Your task to perform on an android device: allow cookies in the chrome app Image 0: 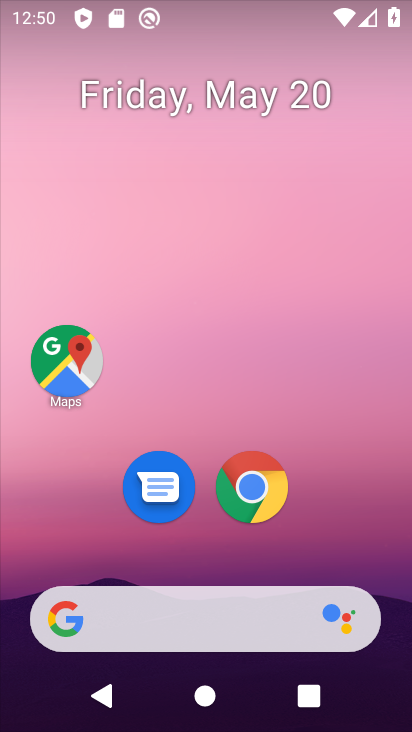
Step 0: click (256, 488)
Your task to perform on an android device: allow cookies in the chrome app Image 1: 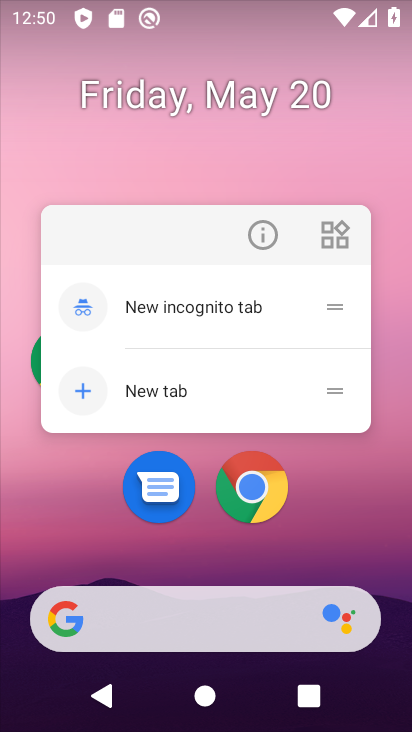
Step 1: click (256, 488)
Your task to perform on an android device: allow cookies in the chrome app Image 2: 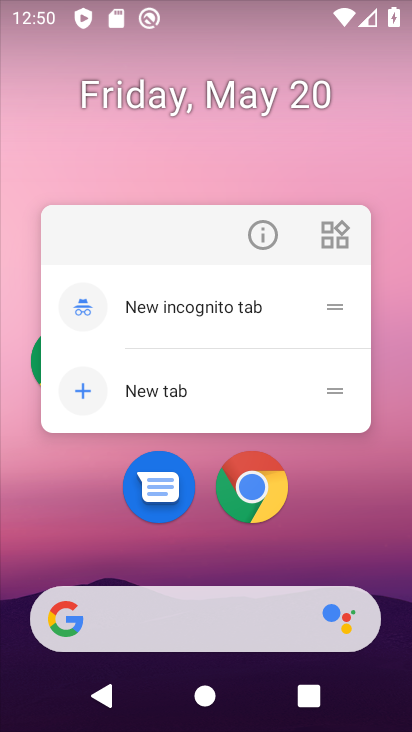
Step 2: click (250, 493)
Your task to perform on an android device: allow cookies in the chrome app Image 3: 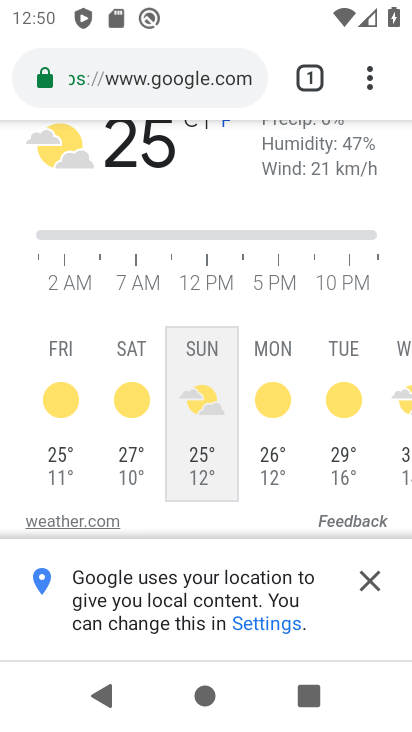
Step 3: click (370, 69)
Your task to perform on an android device: allow cookies in the chrome app Image 4: 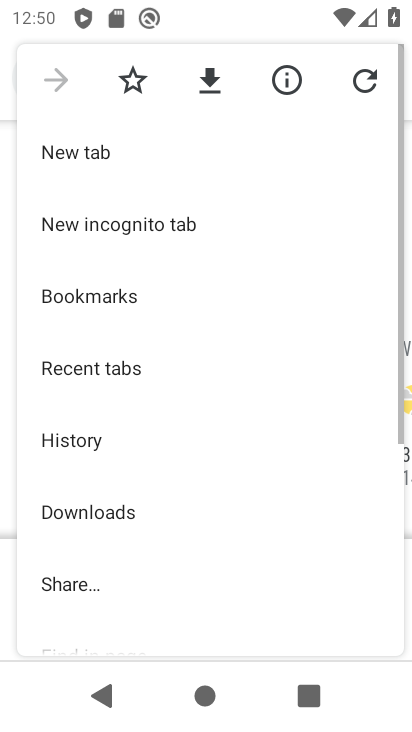
Step 4: drag from (220, 522) to (259, 204)
Your task to perform on an android device: allow cookies in the chrome app Image 5: 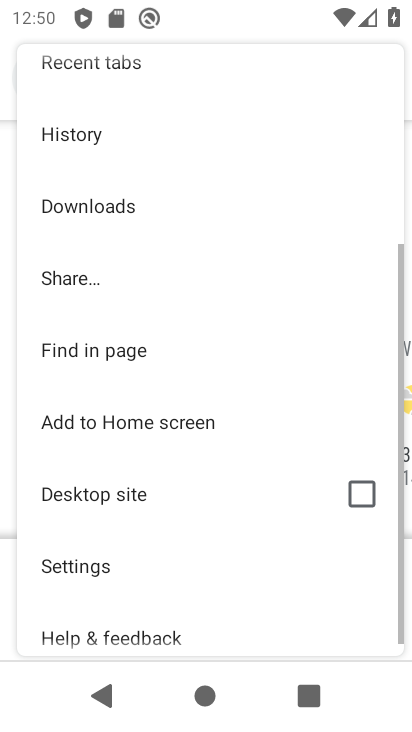
Step 5: click (109, 553)
Your task to perform on an android device: allow cookies in the chrome app Image 6: 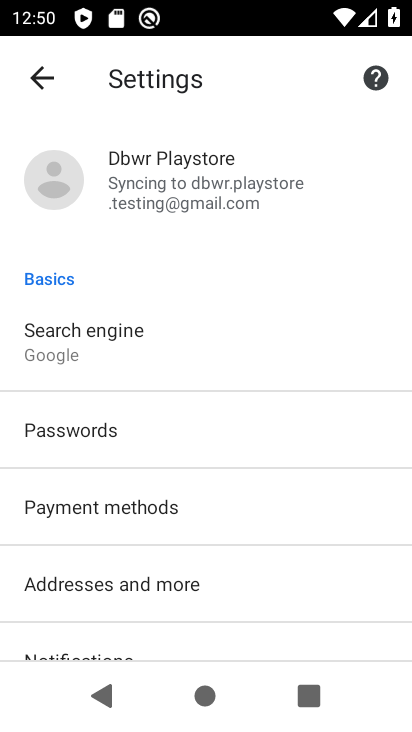
Step 6: drag from (185, 571) to (220, 234)
Your task to perform on an android device: allow cookies in the chrome app Image 7: 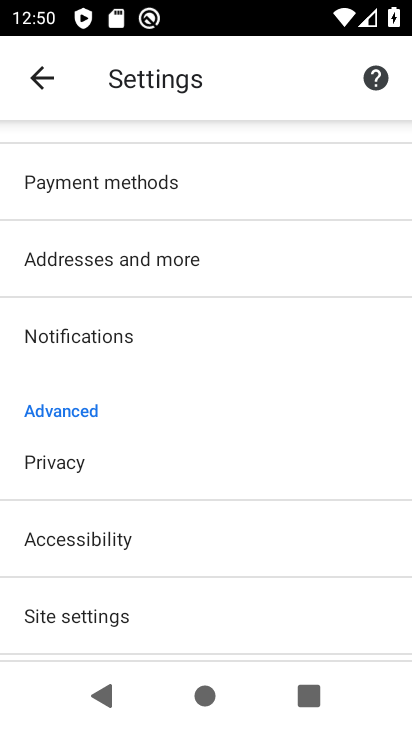
Step 7: drag from (179, 522) to (252, 273)
Your task to perform on an android device: allow cookies in the chrome app Image 8: 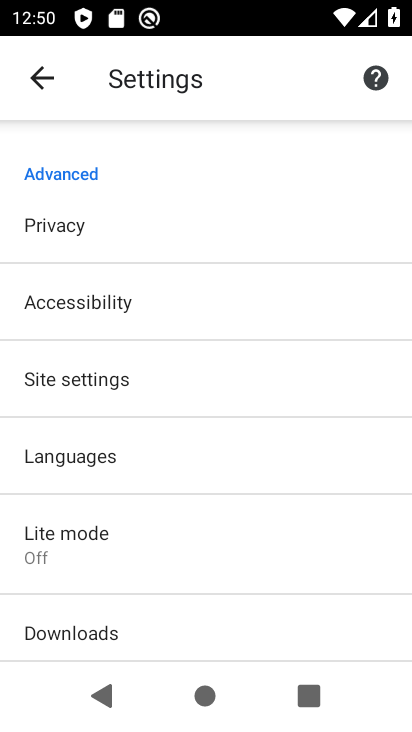
Step 8: click (135, 392)
Your task to perform on an android device: allow cookies in the chrome app Image 9: 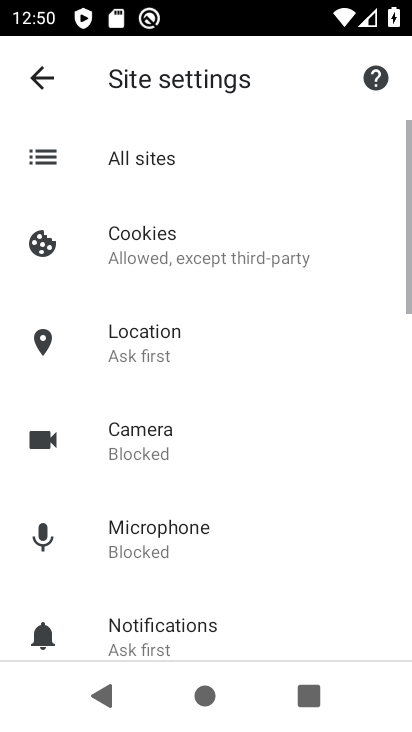
Step 9: click (220, 253)
Your task to perform on an android device: allow cookies in the chrome app Image 10: 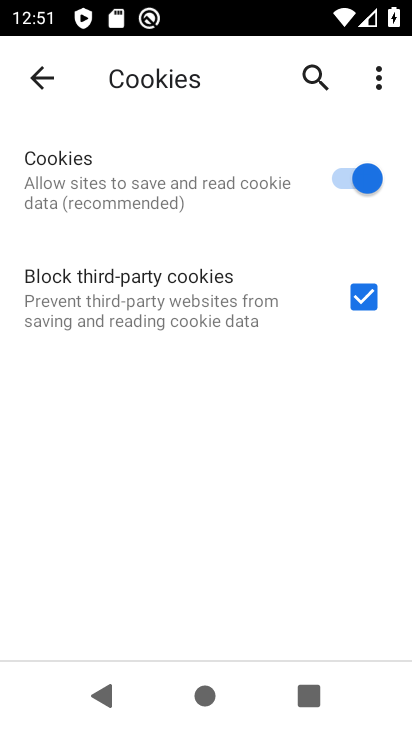
Step 10: task complete